Your task to perform on an android device: What's on my calendar tomorrow? Image 0: 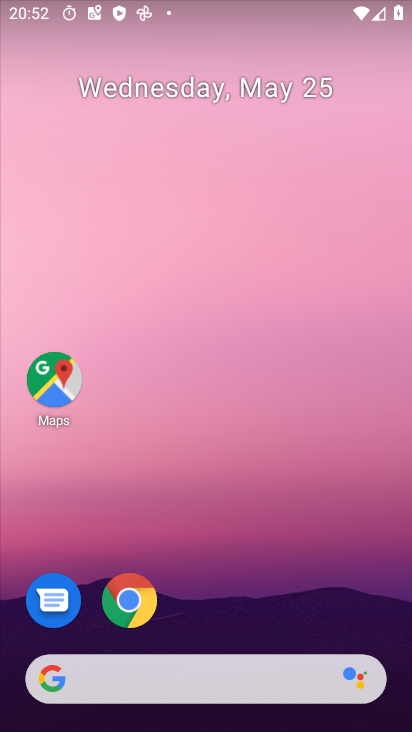
Step 0: drag from (343, 607) to (341, 92)
Your task to perform on an android device: What's on my calendar tomorrow? Image 1: 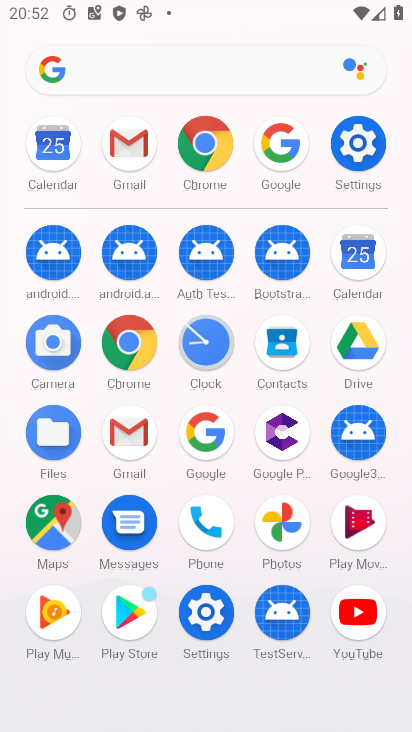
Step 1: click (364, 257)
Your task to perform on an android device: What's on my calendar tomorrow? Image 2: 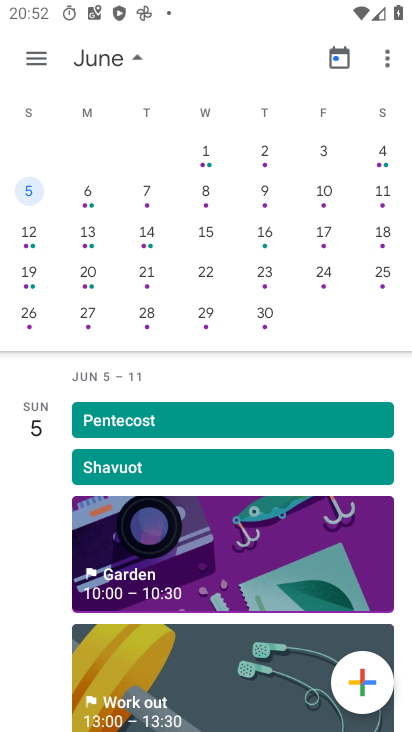
Step 2: drag from (46, 268) to (398, 252)
Your task to perform on an android device: What's on my calendar tomorrow? Image 3: 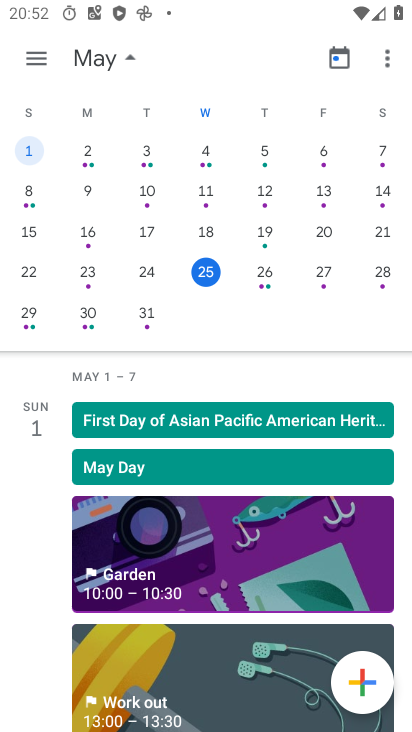
Step 3: click (272, 274)
Your task to perform on an android device: What's on my calendar tomorrow? Image 4: 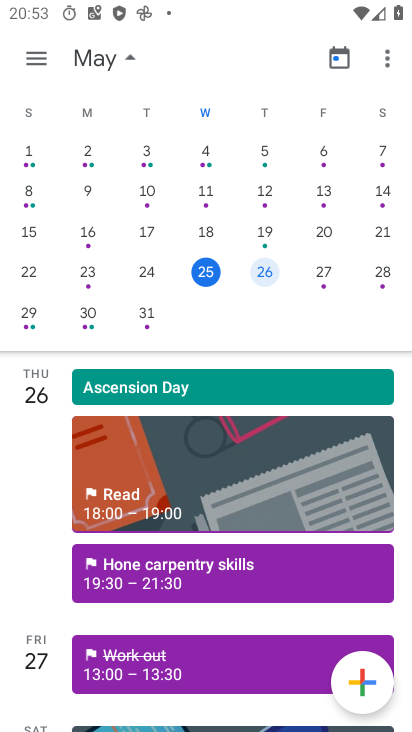
Step 4: task complete